Your task to perform on an android device: change the clock display to analog Image 0: 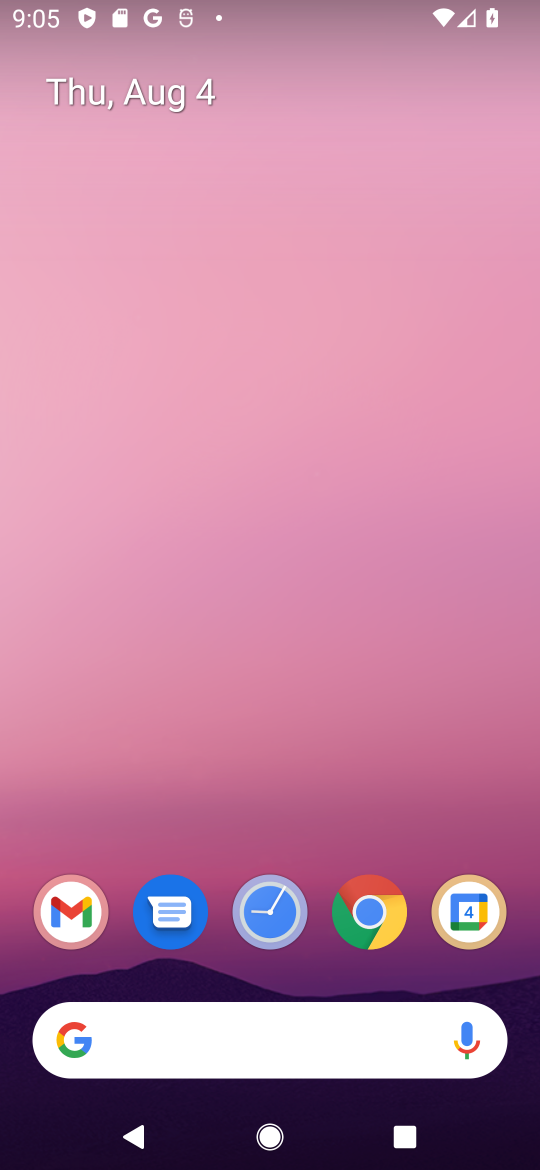
Step 0: click (285, 914)
Your task to perform on an android device: change the clock display to analog Image 1: 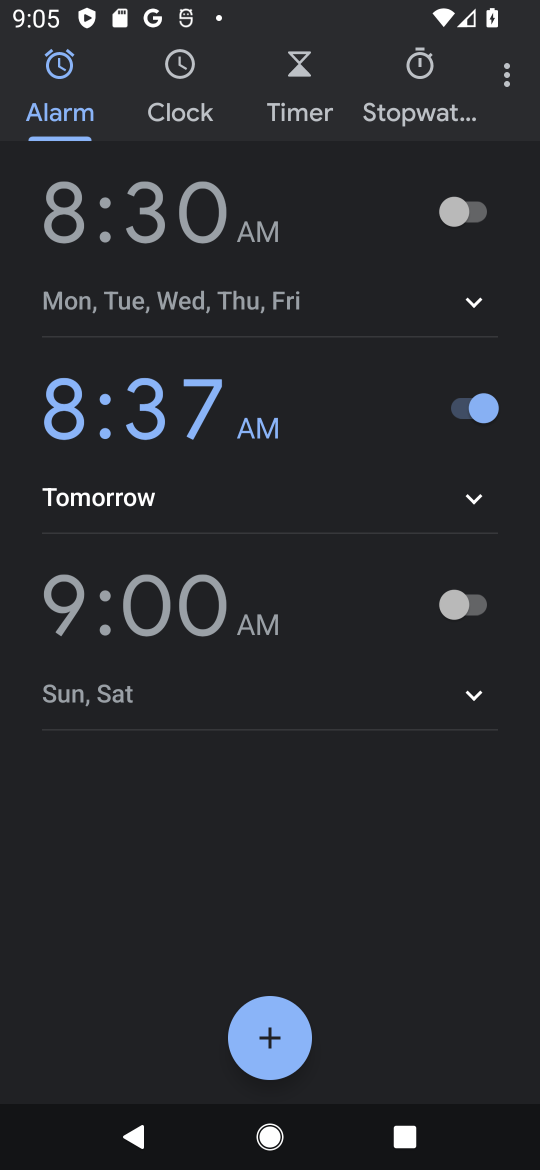
Step 1: click (513, 71)
Your task to perform on an android device: change the clock display to analog Image 2: 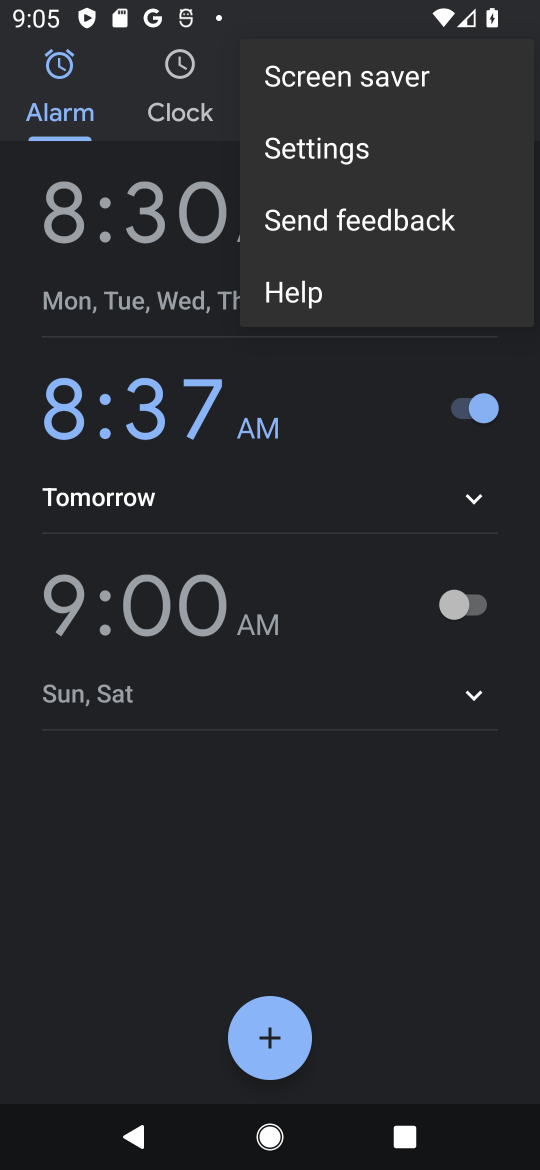
Step 2: click (418, 149)
Your task to perform on an android device: change the clock display to analog Image 3: 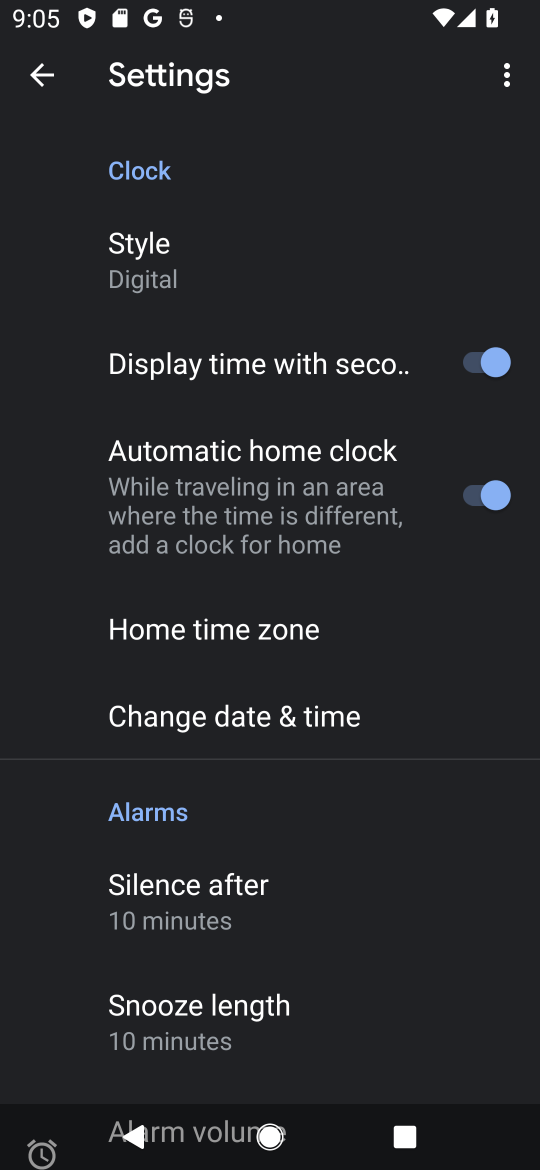
Step 3: click (369, 249)
Your task to perform on an android device: change the clock display to analog Image 4: 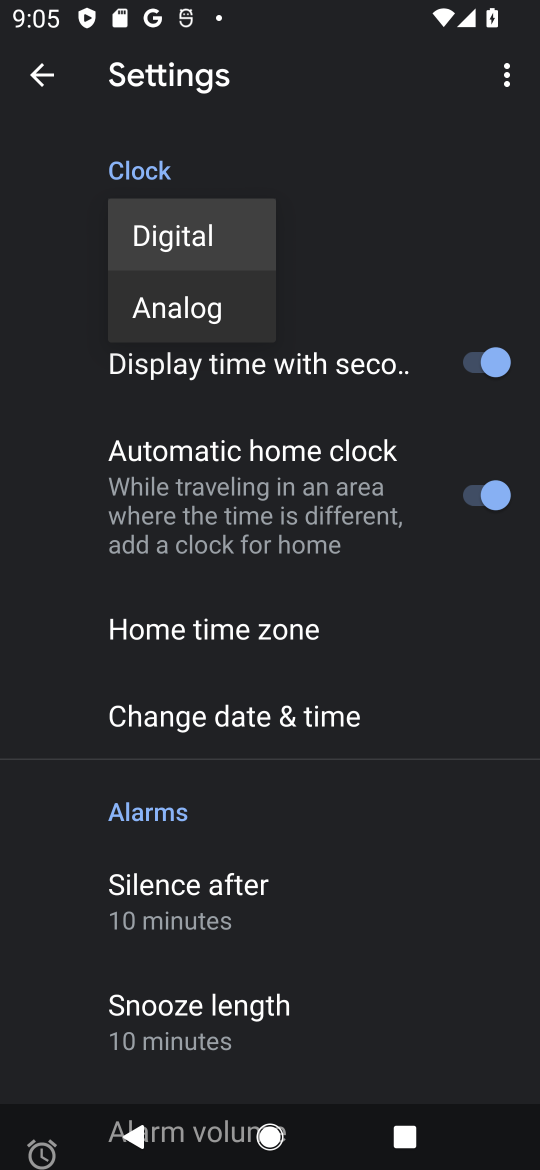
Step 4: click (212, 314)
Your task to perform on an android device: change the clock display to analog Image 5: 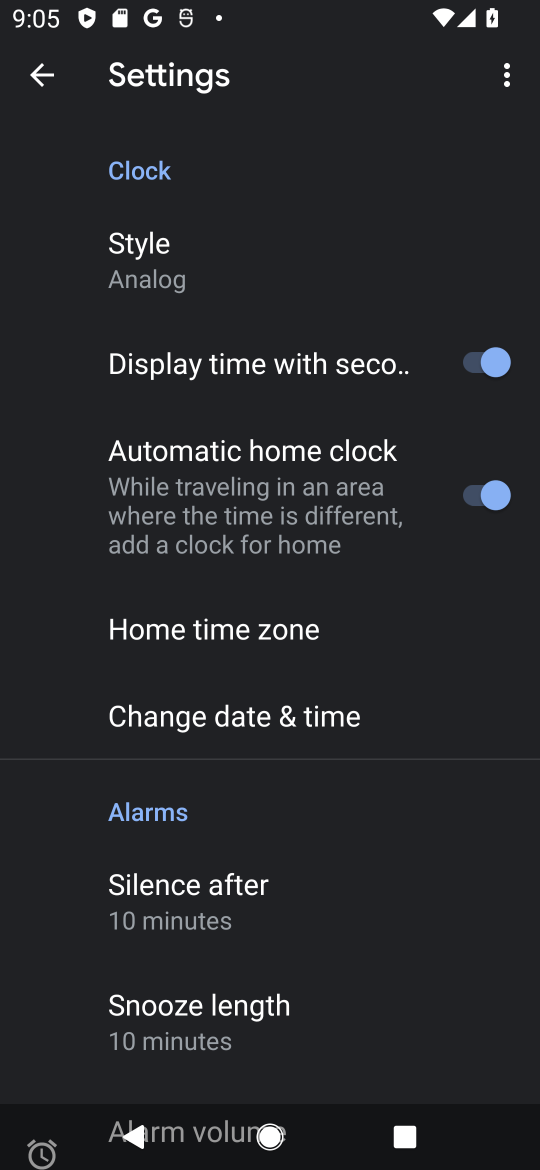
Step 5: task complete